Your task to perform on an android device: remove spam from my inbox in the gmail app Image 0: 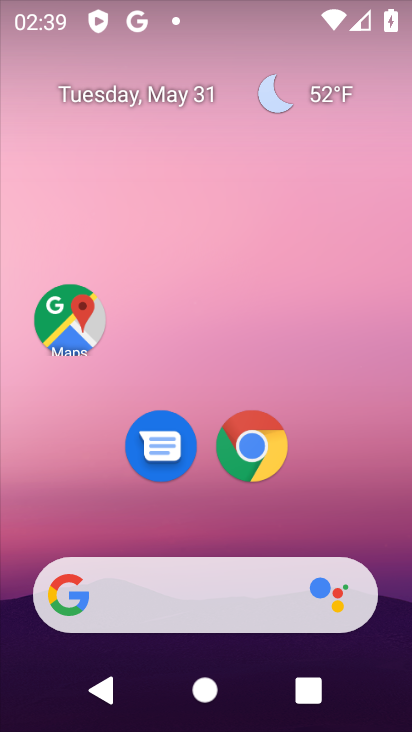
Step 0: drag from (336, 525) to (200, 4)
Your task to perform on an android device: remove spam from my inbox in the gmail app Image 1: 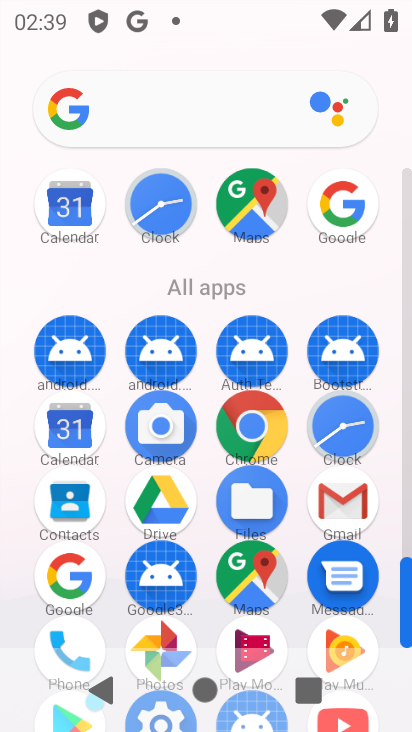
Step 1: click (342, 499)
Your task to perform on an android device: remove spam from my inbox in the gmail app Image 2: 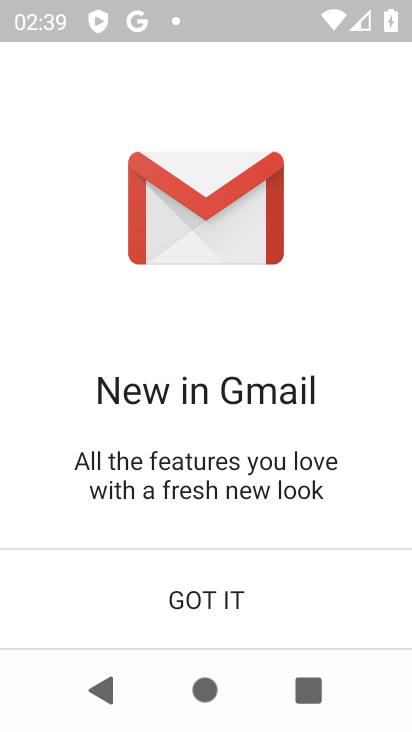
Step 2: click (205, 588)
Your task to perform on an android device: remove spam from my inbox in the gmail app Image 3: 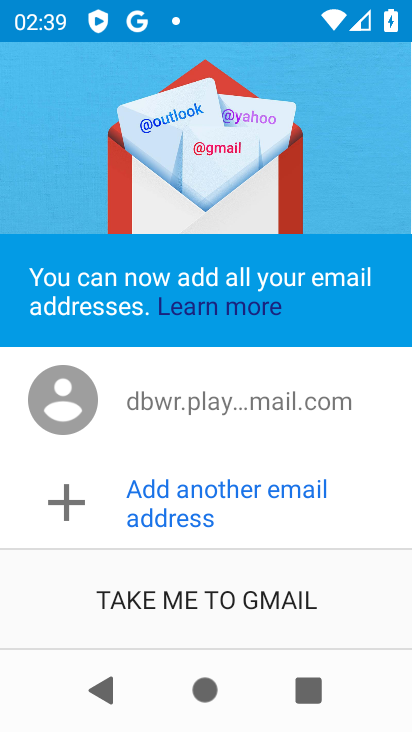
Step 3: click (207, 594)
Your task to perform on an android device: remove spam from my inbox in the gmail app Image 4: 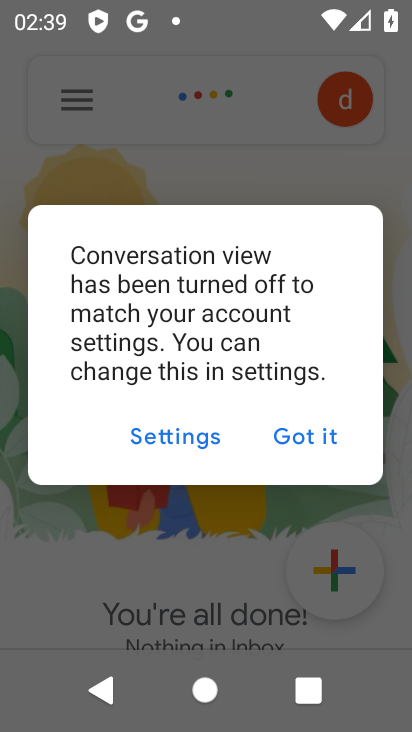
Step 4: click (310, 443)
Your task to perform on an android device: remove spam from my inbox in the gmail app Image 5: 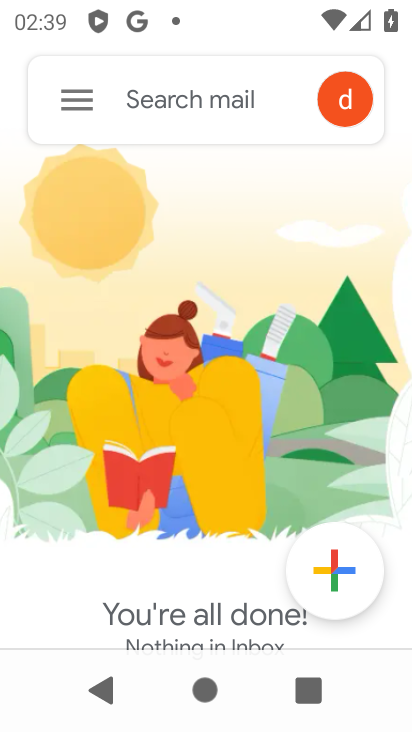
Step 5: click (80, 104)
Your task to perform on an android device: remove spam from my inbox in the gmail app Image 6: 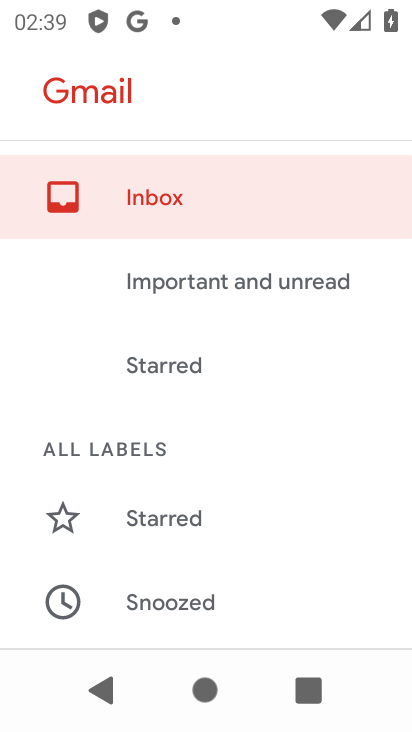
Step 6: drag from (174, 408) to (219, 287)
Your task to perform on an android device: remove spam from my inbox in the gmail app Image 7: 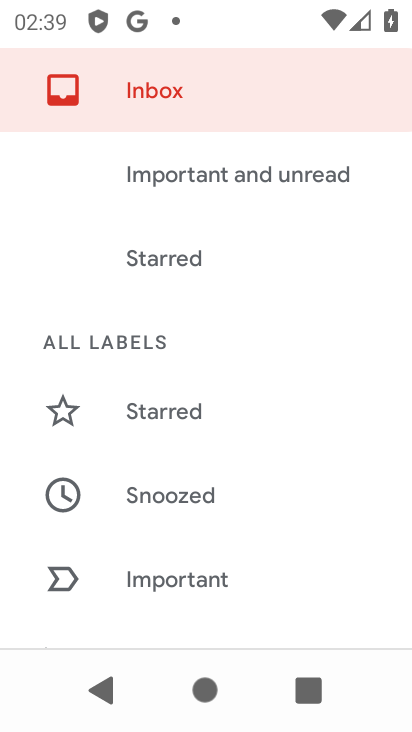
Step 7: drag from (181, 467) to (242, 387)
Your task to perform on an android device: remove spam from my inbox in the gmail app Image 8: 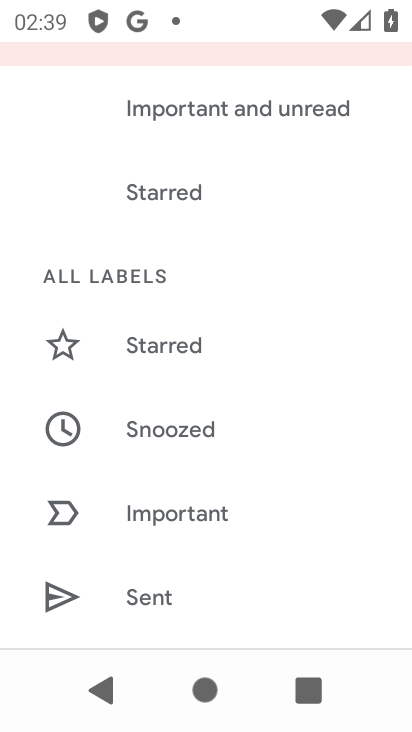
Step 8: drag from (187, 489) to (266, 391)
Your task to perform on an android device: remove spam from my inbox in the gmail app Image 9: 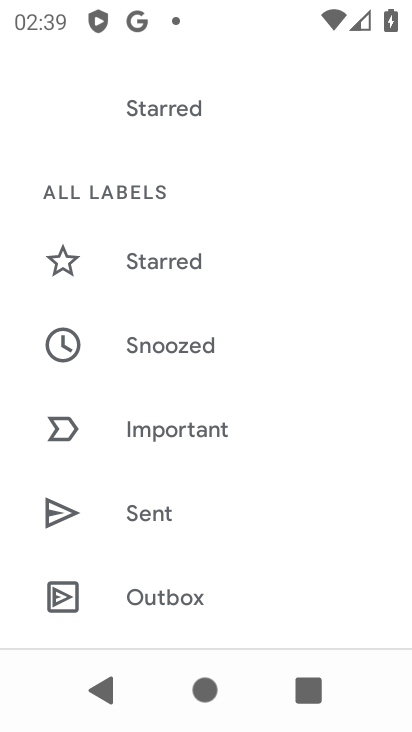
Step 9: drag from (174, 539) to (239, 427)
Your task to perform on an android device: remove spam from my inbox in the gmail app Image 10: 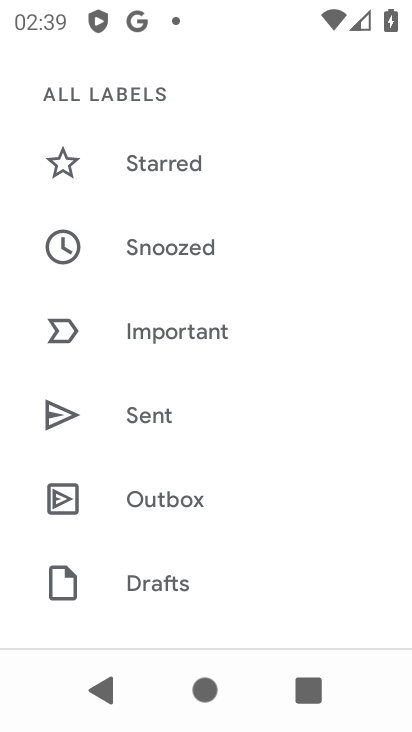
Step 10: drag from (166, 473) to (199, 361)
Your task to perform on an android device: remove spam from my inbox in the gmail app Image 11: 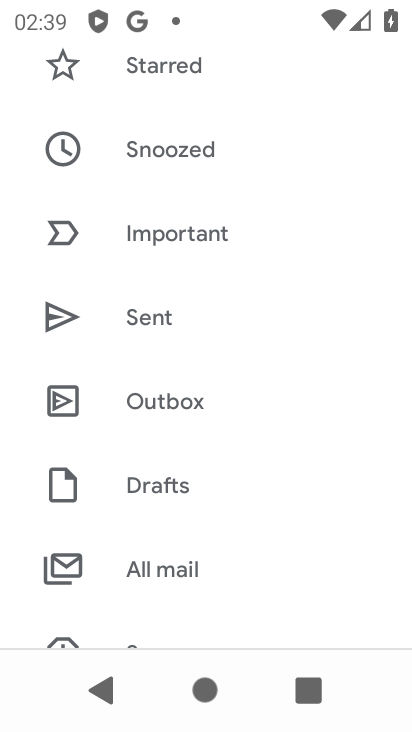
Step 11: drag from (186, 455) to (228, 365)
Your task to perform on an android device: remove spam from my inbox in the gmail app Image 12: 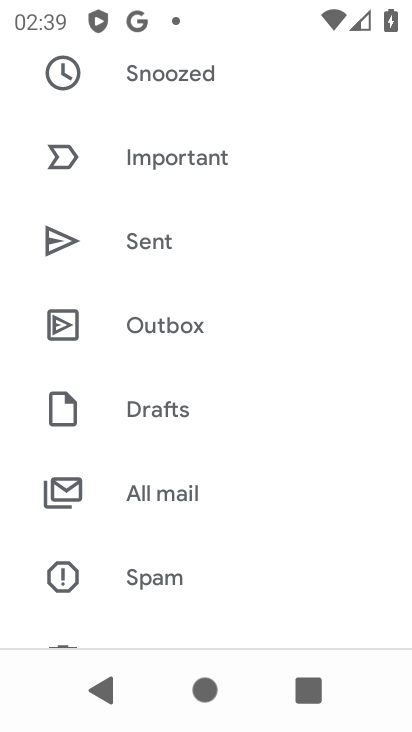
Step 12: drag from (169, 466) to (201, 378)
Your task to perform on an android device: remove spam from my inbox in the gmail app Image 13: 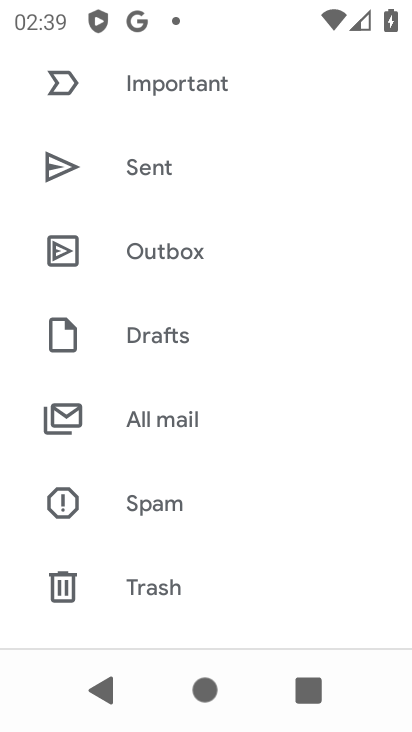
Step 13: drag from (169, 472) to (251, 377)
Your task to perform on an android device: remove spam from my inbox in the gmail app Image 14: 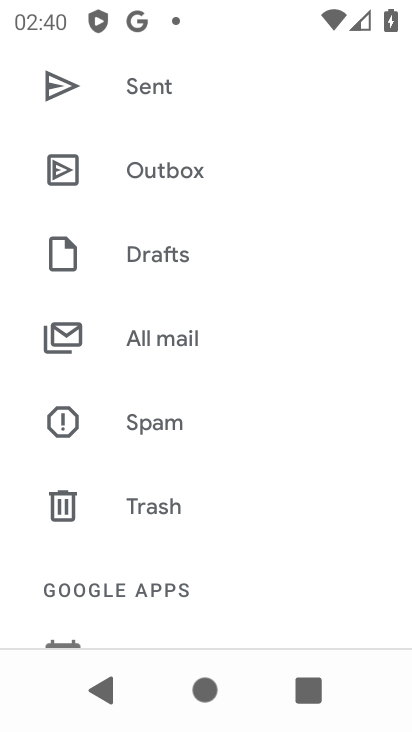
Step 14: click (177, 425)
Your task to perform on an android device: remove spam from my inbox in the gmail app Image 15: 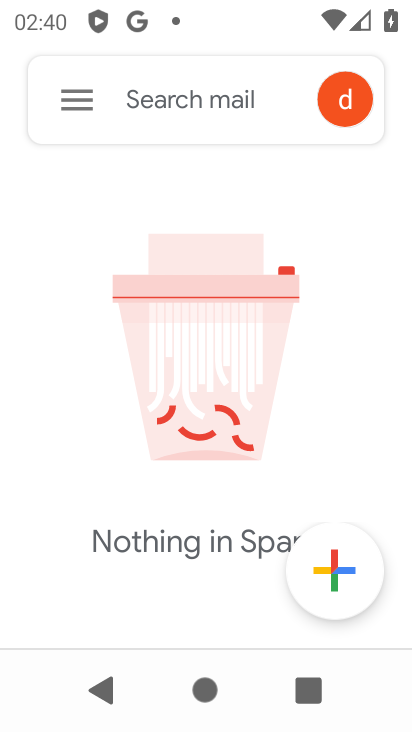
Step 15: task complete